Your task to perform on an android device: empty trash in google photos Image 0: 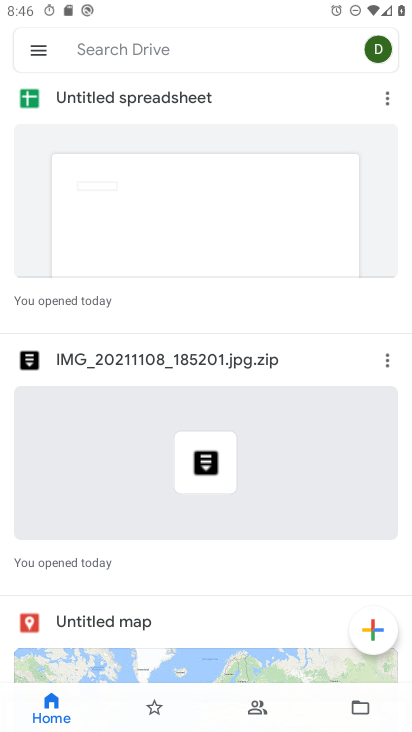
Step 0: press home button
Your task to perform on an android device: empty trash in google photos Image 1: 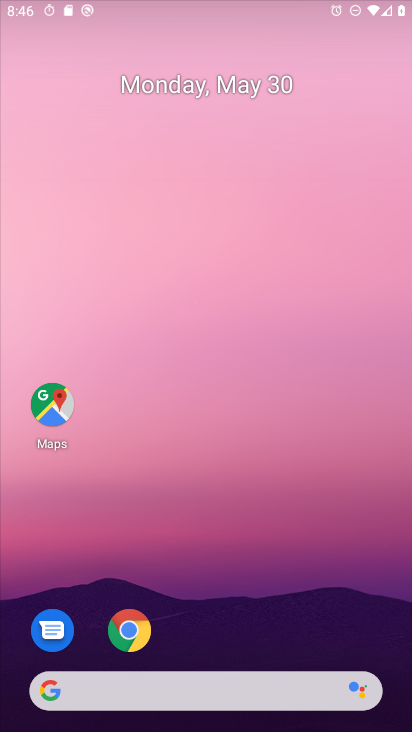
Step 1: drag from (373, 612) to (87, 7)
Your task to perform on an android device: empty trash in google photos Image 2: 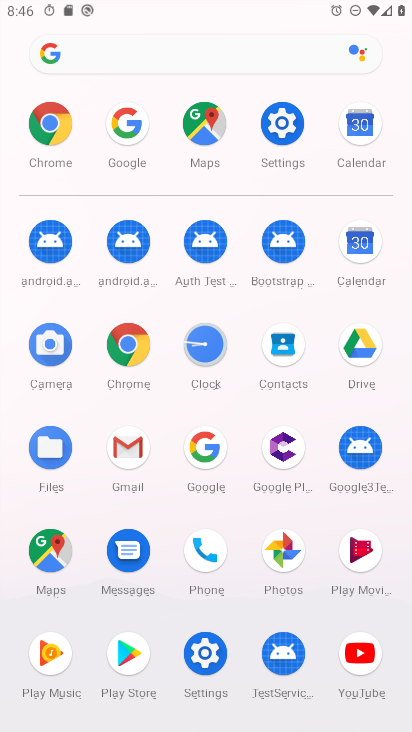
Step 2: click (280, 534)
Your task to perform on an android device: empty trash in google photos Image 3: 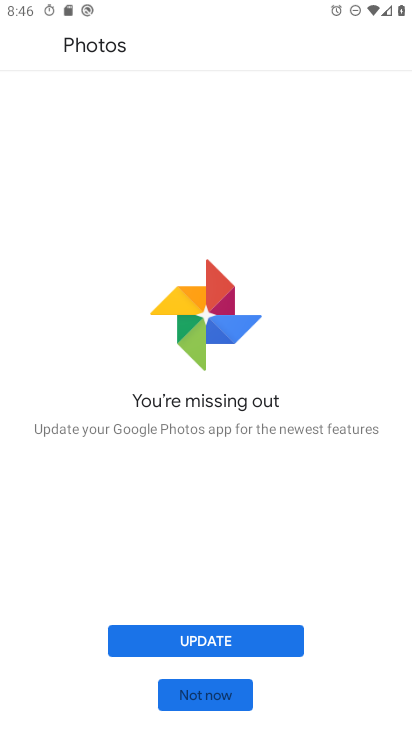
Step 3: click (189, 654)
Your task to perform on an android device: empty trash in google photos Image 4: 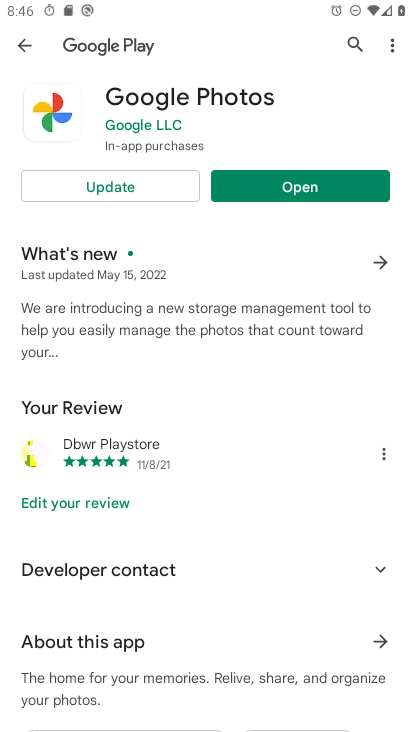
Step 4: click (91, 183)
Your task to perform on an android device: empty trash in google photos Image 5: 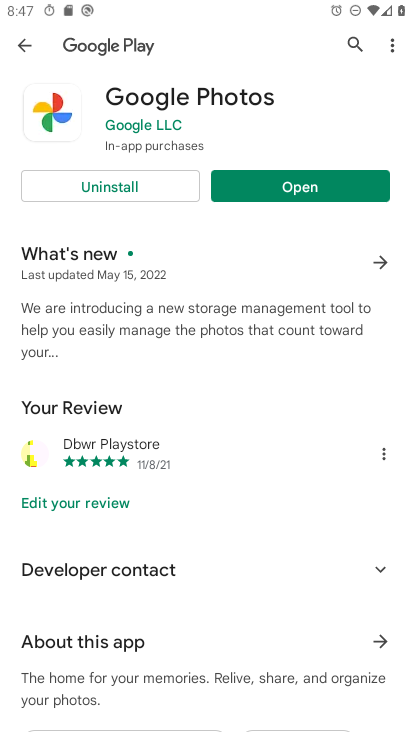
Step 5: click (294, 188)
Your task to perform on an android device: empty trash in google photos Image 6: 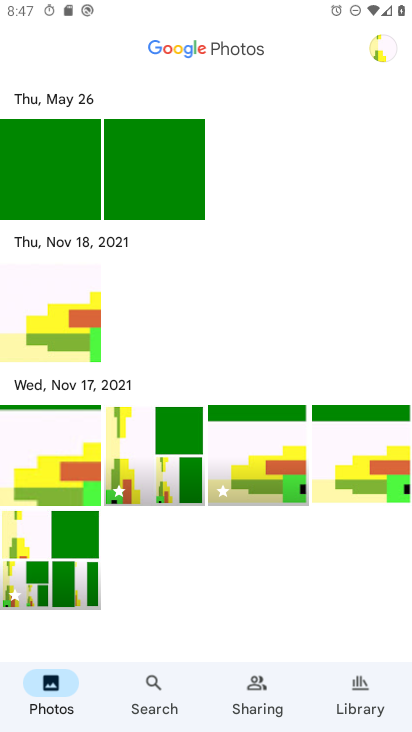
Step 6: click (366, 682)
Your task to perform on an android device: empty trash in google photos Image 7: 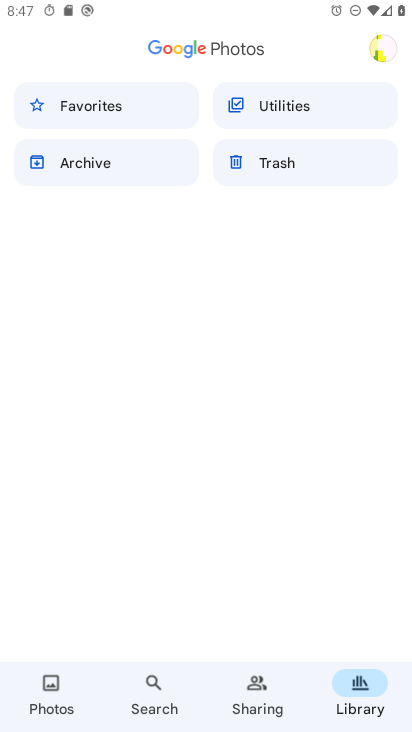
Step 7: click (300, 180)
Your task to perform on an android device: empty trash in google photos Image 8: 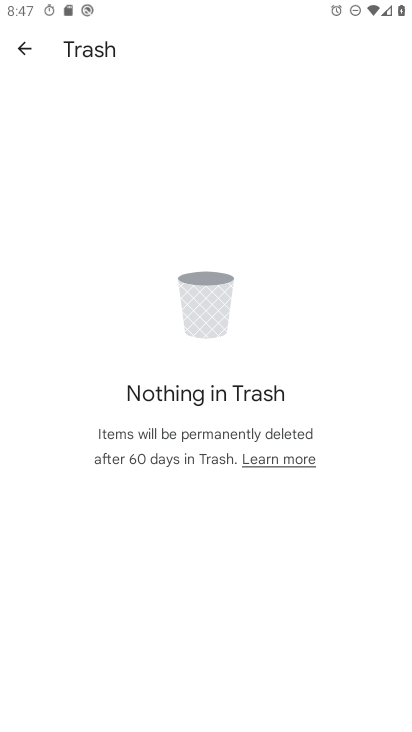
Step 8: task complete